Your task to perform on an android device: turn off smart reply in the gmail app Image 0: 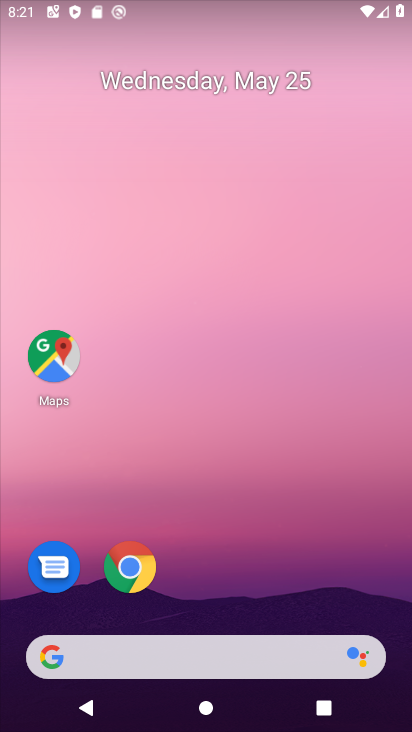
Step 0: drag from (212, 532) to (262, 0)
Your task to perform on an android device: turn off smart reply in the gmail app Image 1: 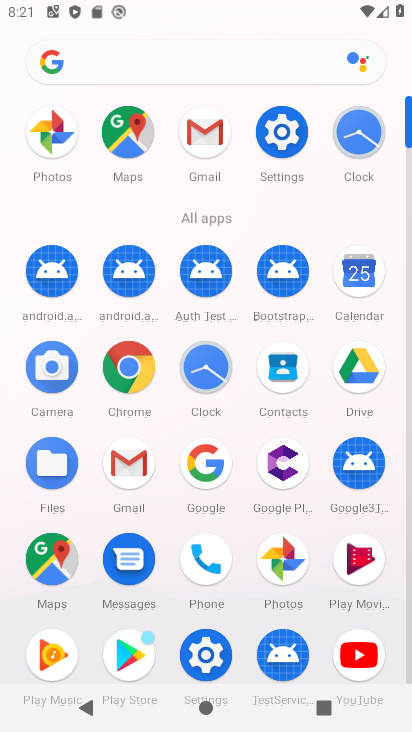
Step 1: click (203, 126)
Your task to perform on an android device: turn off smart reply in the gmail app Image 2: 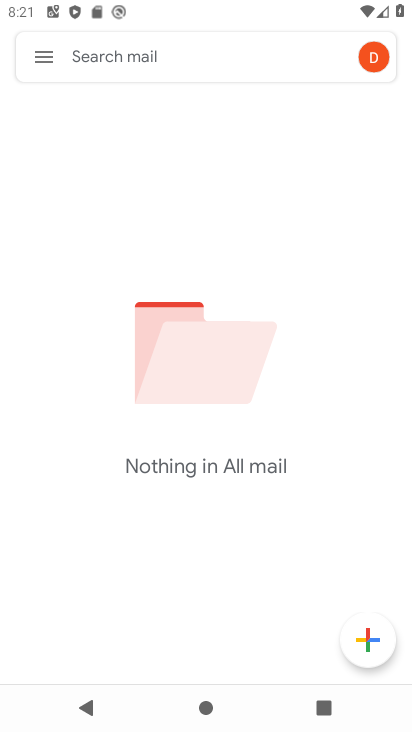
Step 2: click (41, 53)
Your task to perform on an android device: turn off smart reply in the gmail app Image 3: 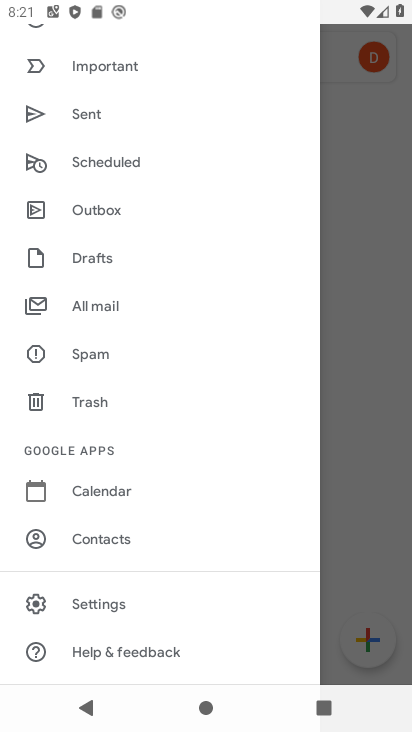
Step 3: click (99, 597)
Your task to perform on an android device: turn off smart reply in the gmail app Image 4: 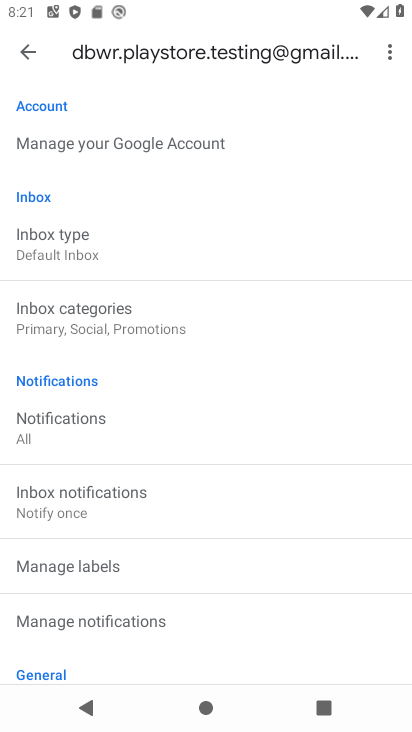
Step 4: drag from (239, 451) to (251, 201)
Your task to perform on an android device: turn off smart reply in the gmail app Image 5: 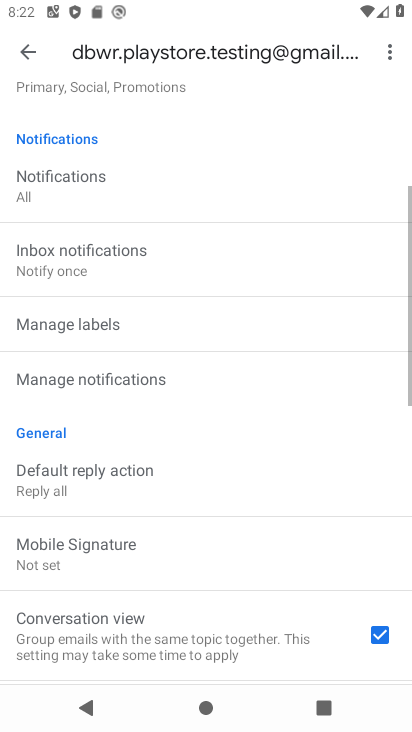
Step 5: drag from (230, 301) to (90, 197)
Your task to perform on an android device: turn off smart reply in the gmail app Image 6: 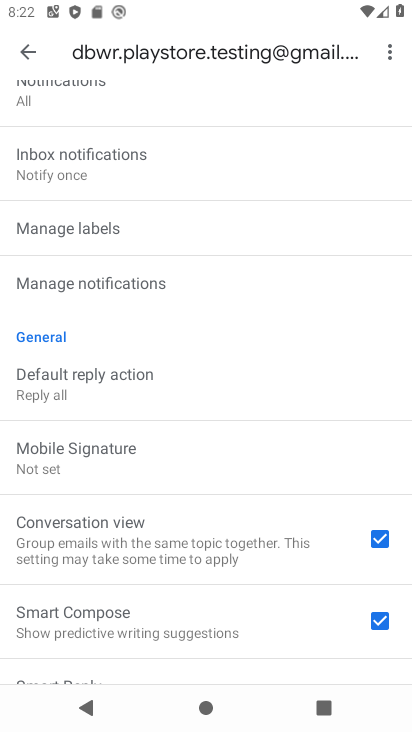
Step 6: drag from (196, 430) to (190, 130)
Your task to perform on an android device: turn off smart reply in the gmail app Image 7: 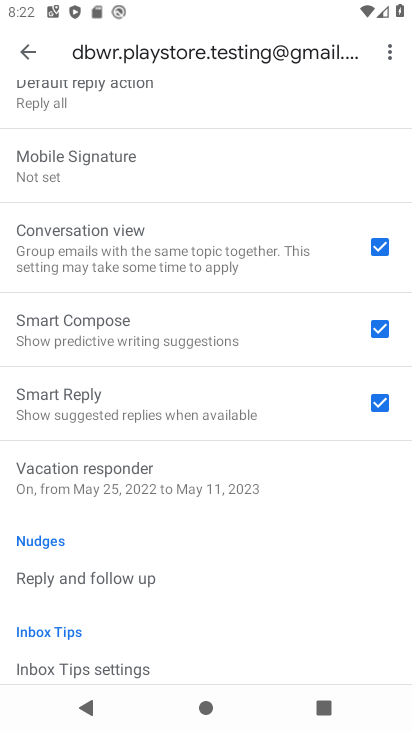
Step 7: click (377, 391)
Your task to perform on an android device: turn off smart reply in the gmail app Image 8: 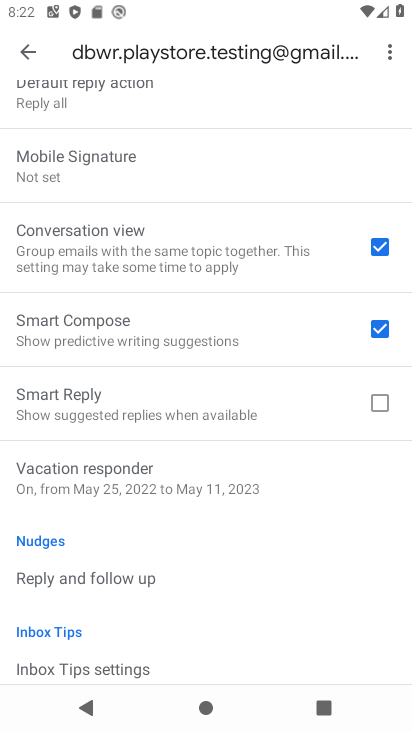
Step 8: task complete